Your task to perform on an android device: Empty the shopping cart on newegg.com. Search for logitech g pro on newegg.com, select the first entry, and add it to the cart. Image 0: 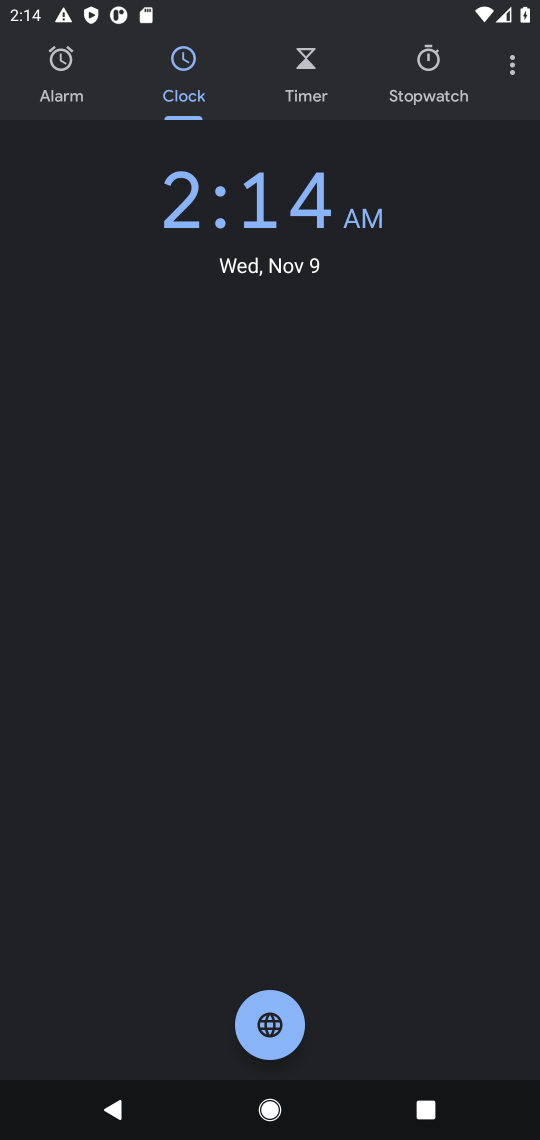
Step 0: press home button
Your task to perform on an android device: Empty the shopping cart on newegg.com. Search for logitech g pro on newegg.com, select the first entry, and add it to the cart. Image 1: 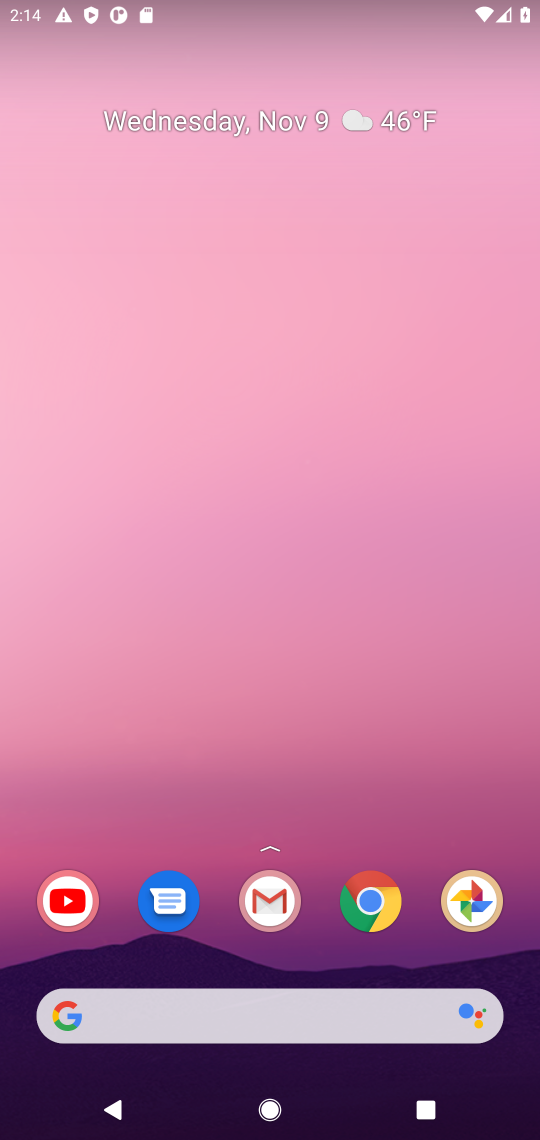
Step 1: click (376, 900)
Your task to perform on an android device: Empty the shopping cart on newegg.com. Search for logitech g pro on newegg.com, select the first entry, and add it to the cart. Image 2: 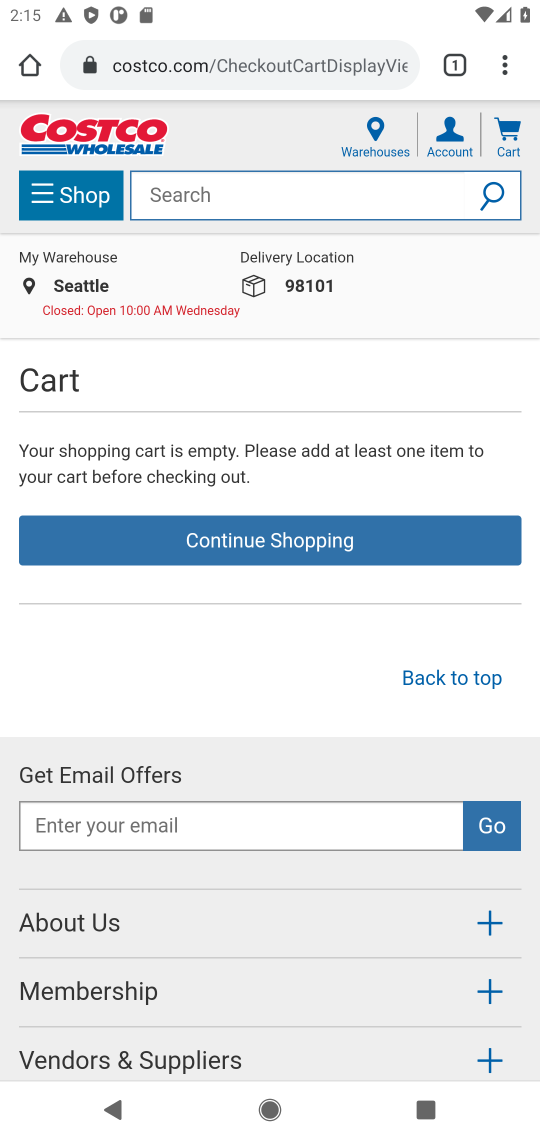
Step 2: click (303, 64)
Your task to perform on an android device: Empty the shopping cart on newegg.com. Search for logitech g pro on newegg.com, select the first entry, and add it to the cart. Image 3: 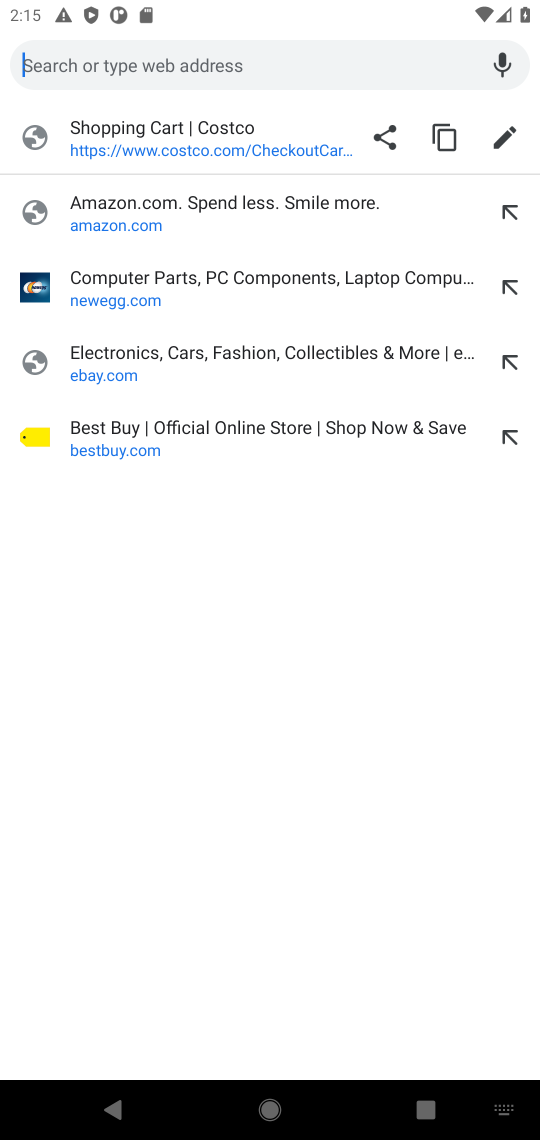
Step 3: type "newegg.com"
Your task to perform on an android device: Empty the shopping cart on newegg.com. Search for logitech g pro on newegg.com, select the first entry, and add it to the cart. Image 4: 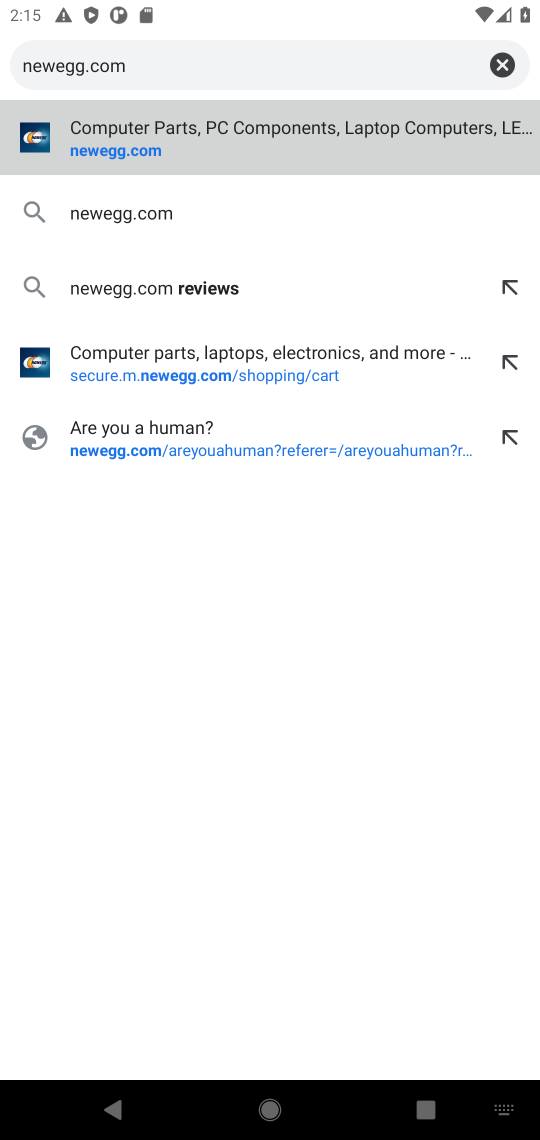
Step 4: press enter
Your task to perform on an android device: Empty the shopping cart on newegg.com. Search for logitech g pro on newegg.com, select the first entry, and add it to the cart. Image 5: 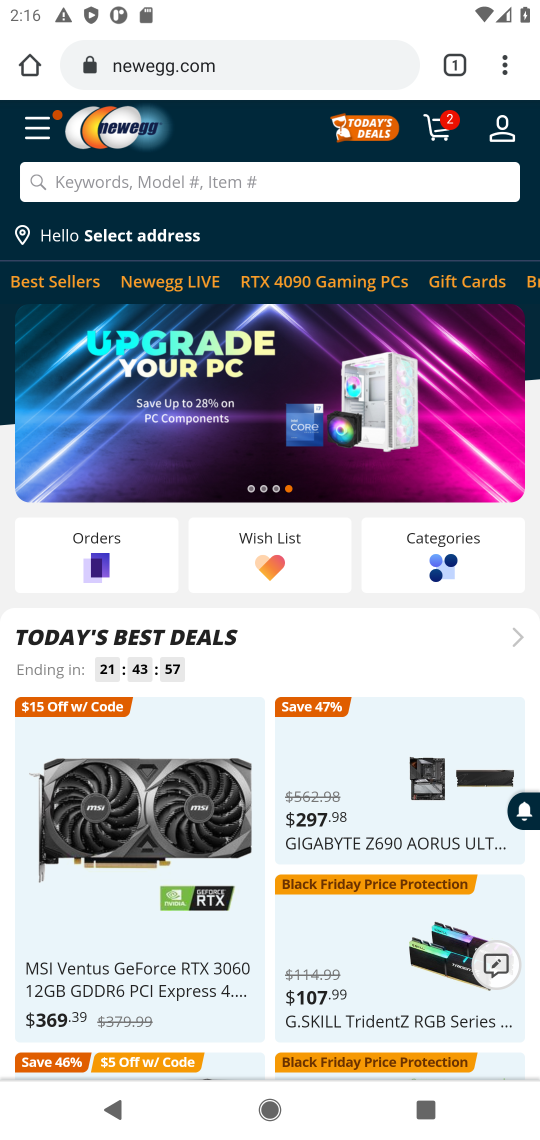
Step 5: click (449, 125)
Your task to perform on an android device: Empty the shopping cart on newegg.com. Search for logitech g pro on newegg.com, select the first entry, and add it to the cart. Image 6: 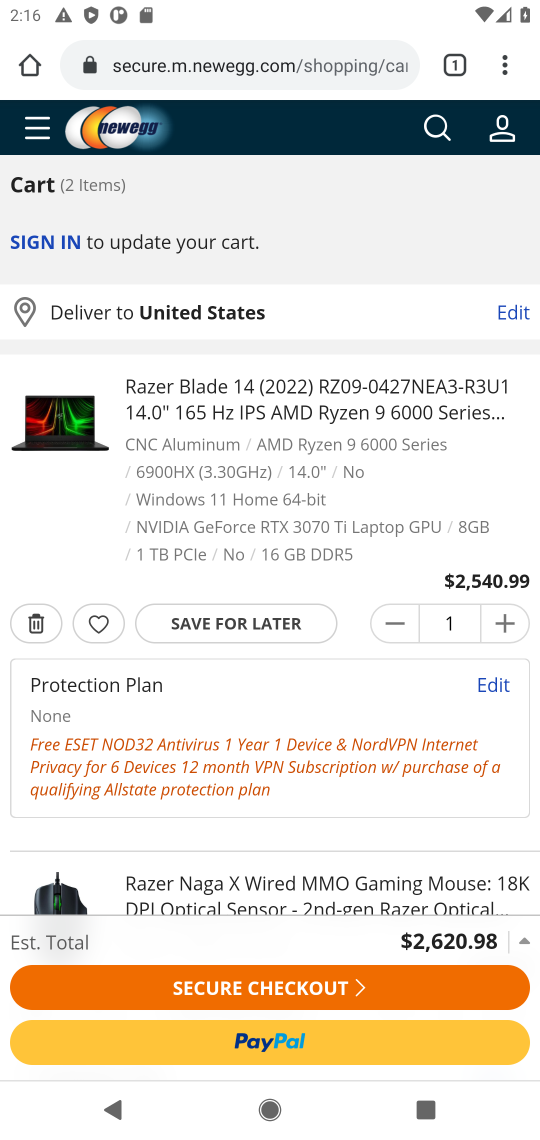
Step 6: click (35, 617)
Your task to perform on an android device: Empty the shopping cart on newegg.com. Search for logitech g pro on newegg.com, select the first entry, and add it to the cart. Image 7: 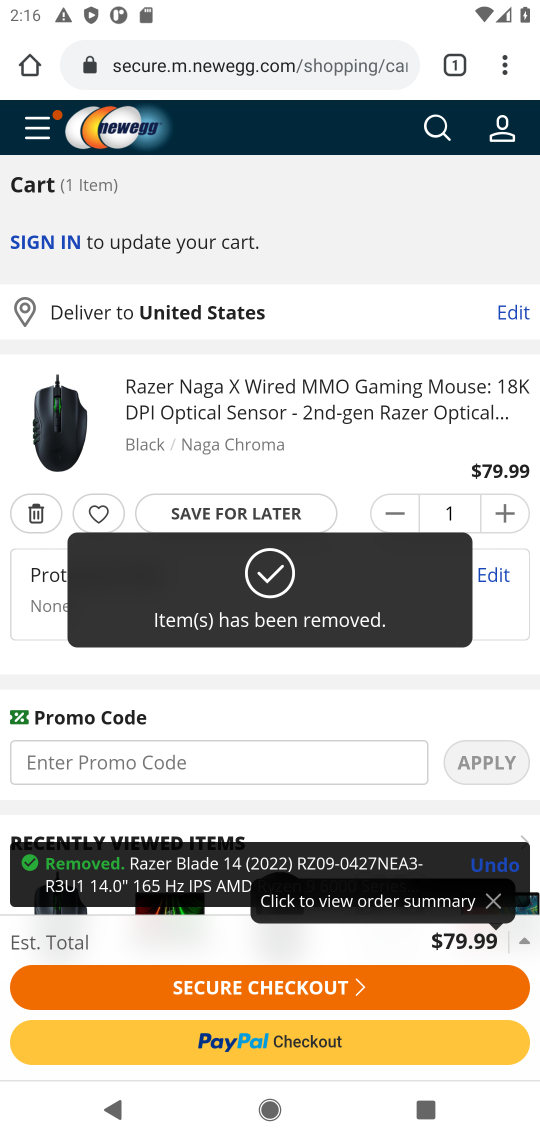
Step 7: click (24, 514)
Your task to perform on an android device: Empty the shopping cart on newegg.com. Search for logitech g pro on newegg.com, select the first entry, and add it to the cart. Image 8: 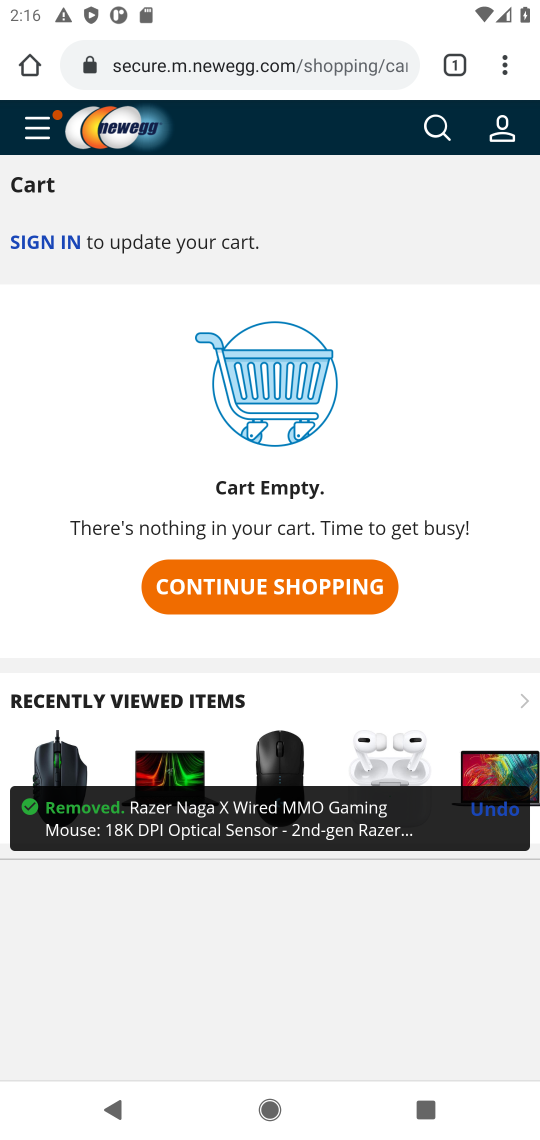
Step 8: click (433, 117)
Your task to perform on an android device: Empty the shopping cart on newegg.com. Search for logitech g pro on newegg.com, select the first entry, and add it to the cart. Image 9: 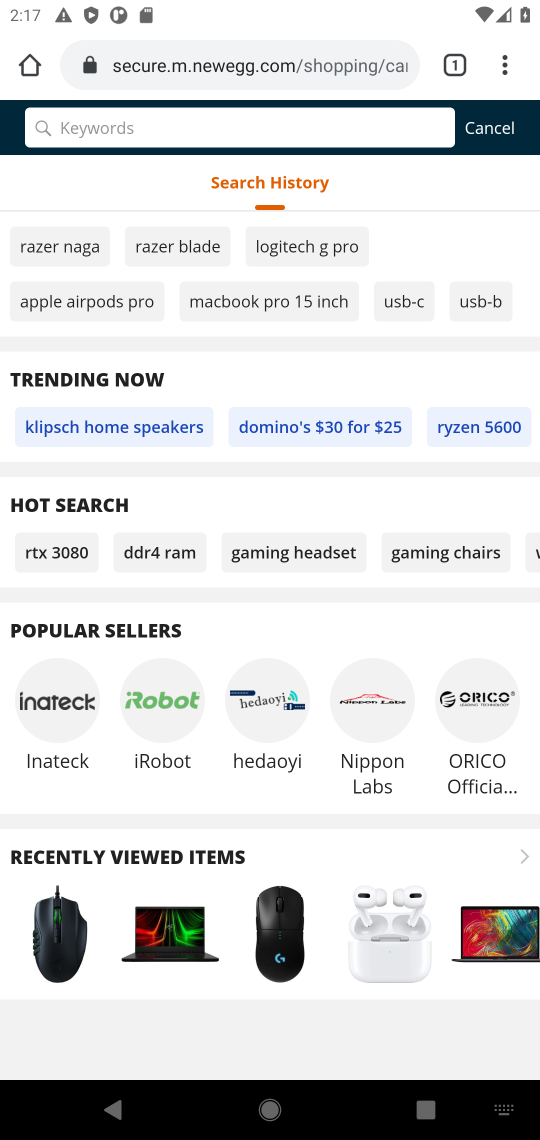
Step 9: type "logitech g pro"
Your task to perform on an android device: Empty the shopping cart on newegg.com. Search for logitech g pro on newegg.com, select the first entry, and add it to the cart. Image 10: 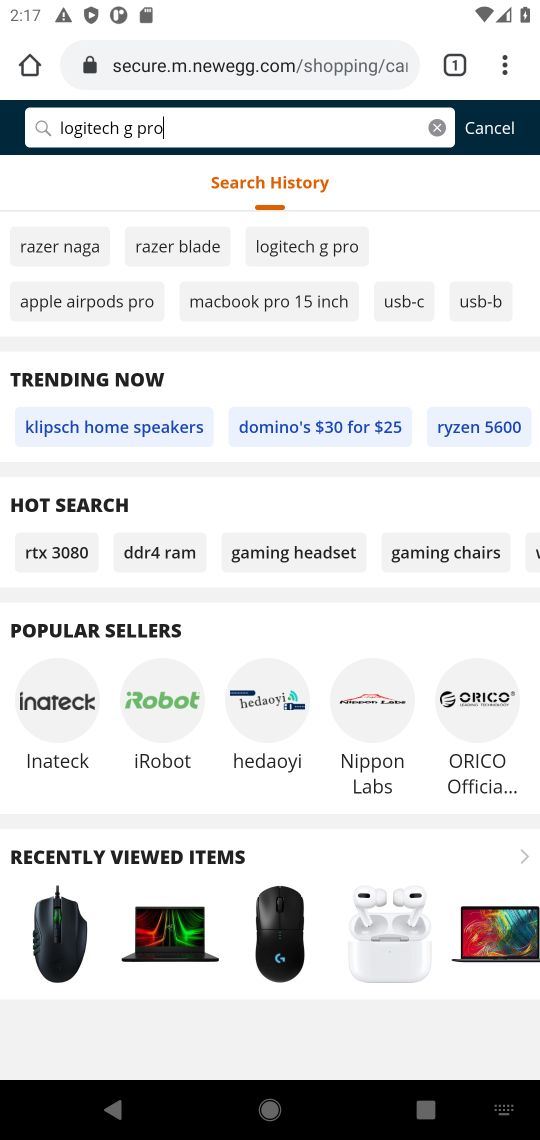
Step 10: press enter
Your task to perform on an android device: Empty the shopping cart on newegg.com. Search for logitech g pro on newegg.com, select the first entry, and add it to the cart. Image 11: 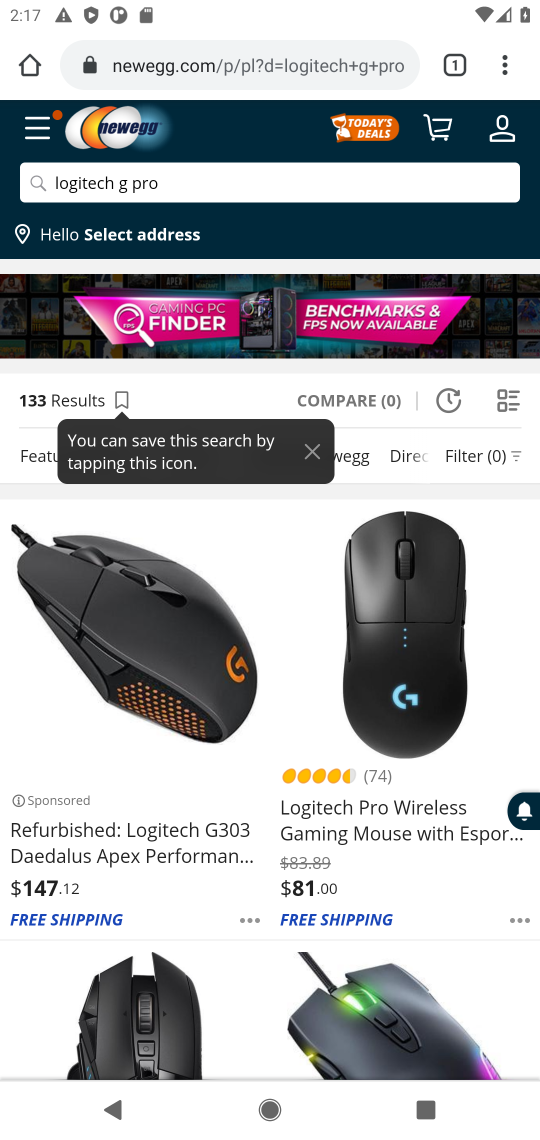
Step 11: drag from (330, 749) to (342, 473)
Your task to perform on an android device: Empty the shopping cart on newegg.com. Search for logitech g pro on newegg.com, select the first entry, and add it to the cart. Image 12: 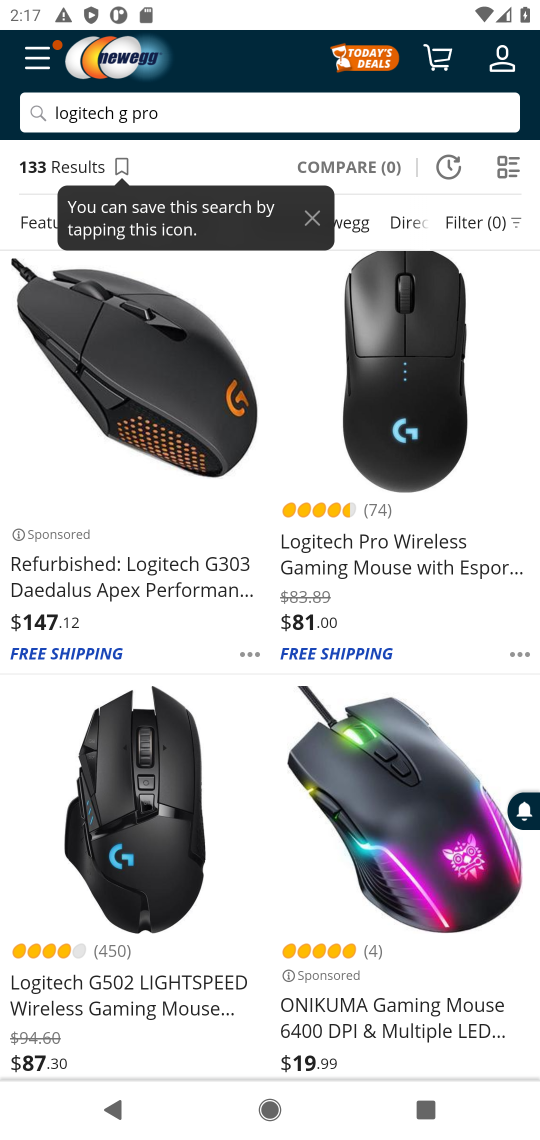
Step 12: drag from (285, 870) to (324, 368)
Your task to perform on an android device: Empty the shopping cart on newegg.com. Search for logitech g pro on newegg.com, select the first entry, and add it to the cart. Image 13: 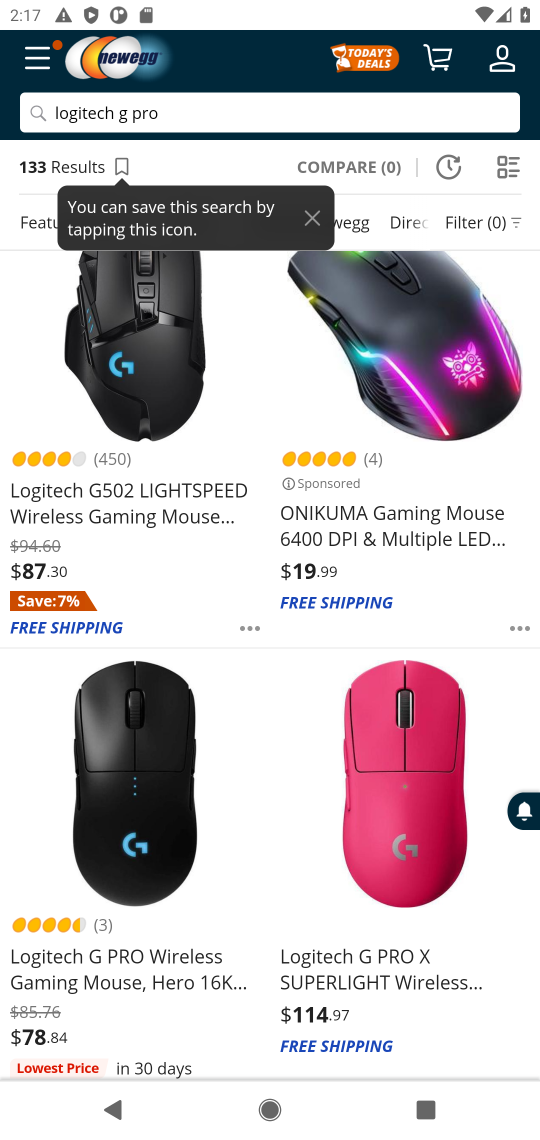
Step 13: click (138, 769)
Your task to perform on an android device: Empty the shopping cart on newegg.com. Search for logitech g pro on newegg.com, select the first entry, and add it to the cart. Image 14: 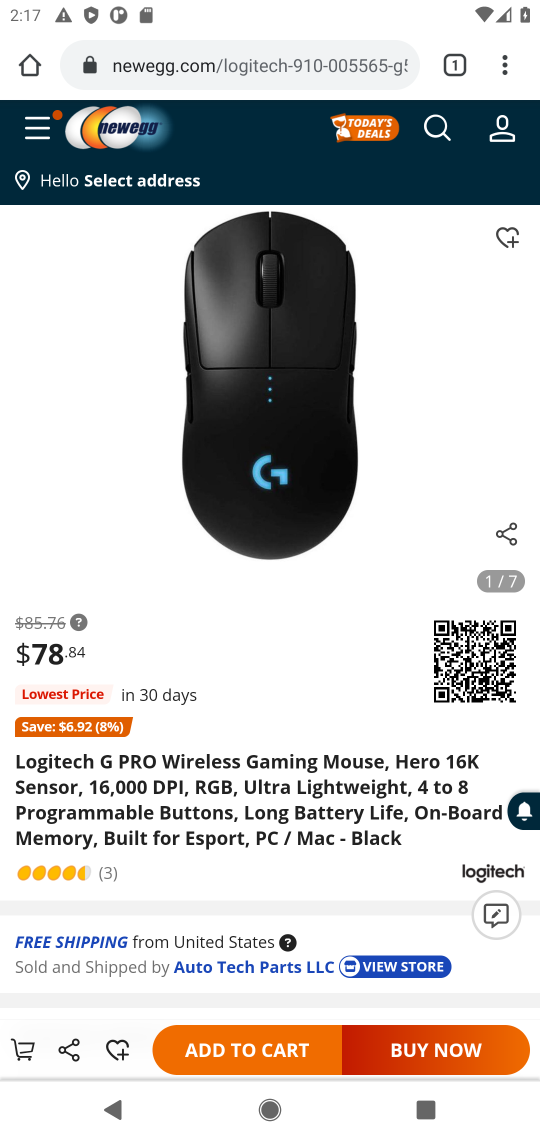
Step 14: drag from (291, 856) to (385, 318)
Your task to perform on an android device: Empty the shopping cart on newegg.com. Search for logitech g pro on newegg.com, select the first entry, and add it to the cart. Image 15: 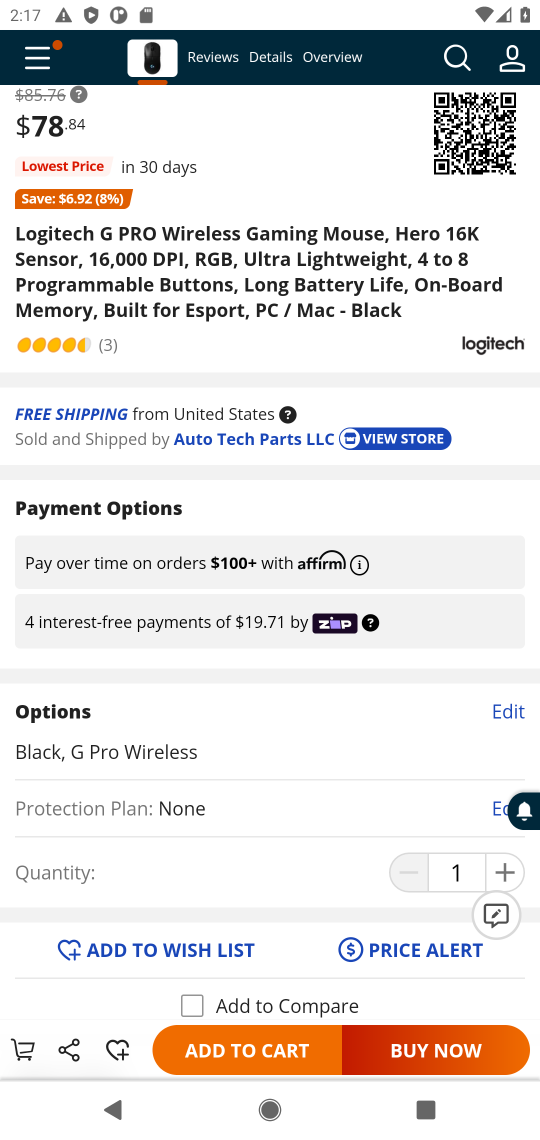
Step 15: click (229, 1060)
Your task to perform on an android device: Empty the shopping cart on newegg.com. Search for logitech g pro on newegg.com, select the first entry, and add it to the cart. Image 16: 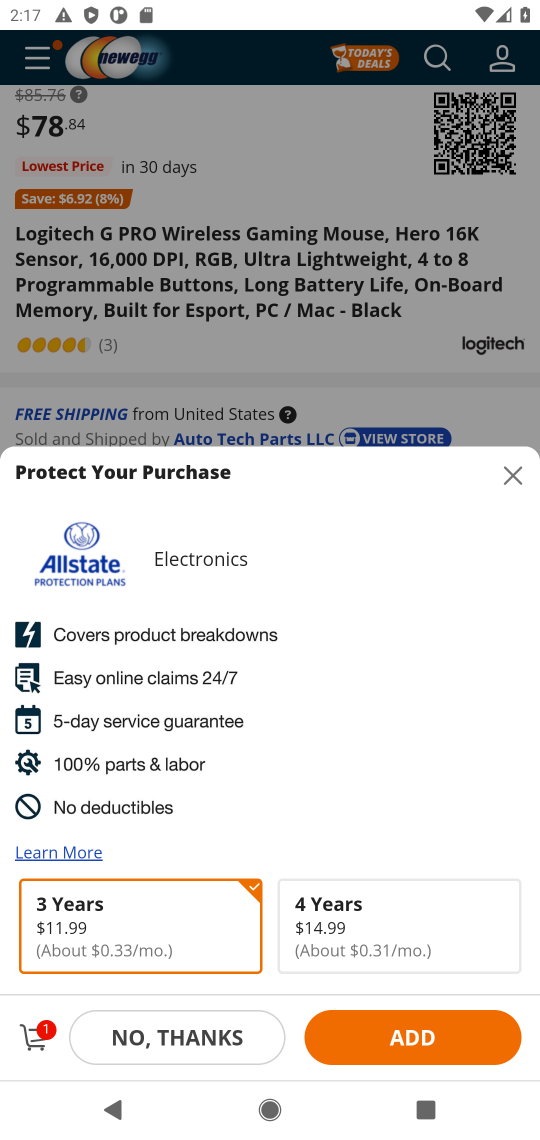
Step 16: task complete